Your task to perform on an android device: Show me recent news Image 0: 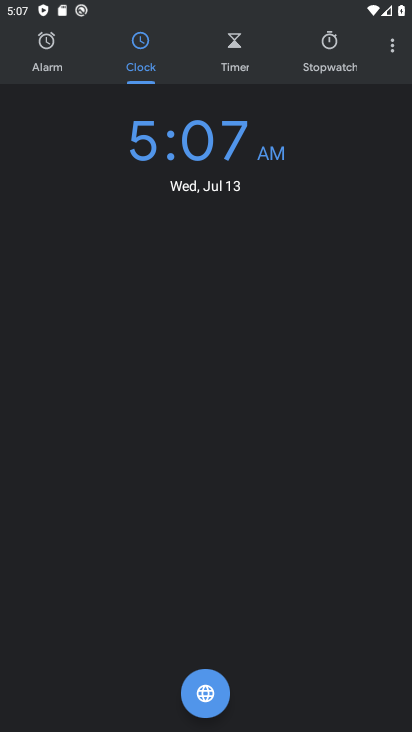
Step 0: drag from (340, 643) to (330, 188)
Your task to perform on an android device: Show me recent news Image 1: 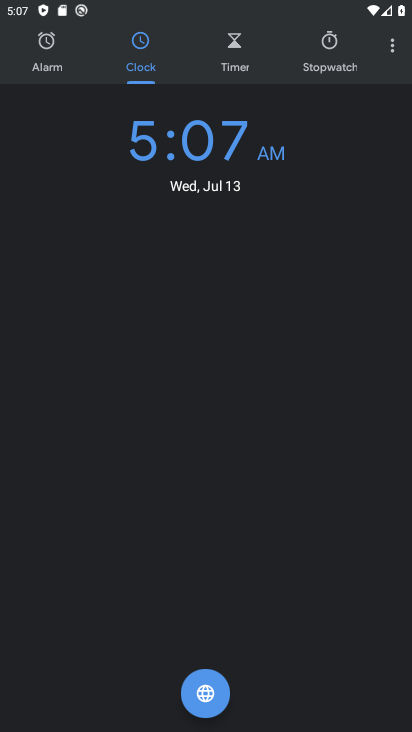
Step 1: press home button
Your task to perform on an android device: Show me recent news Image 2: 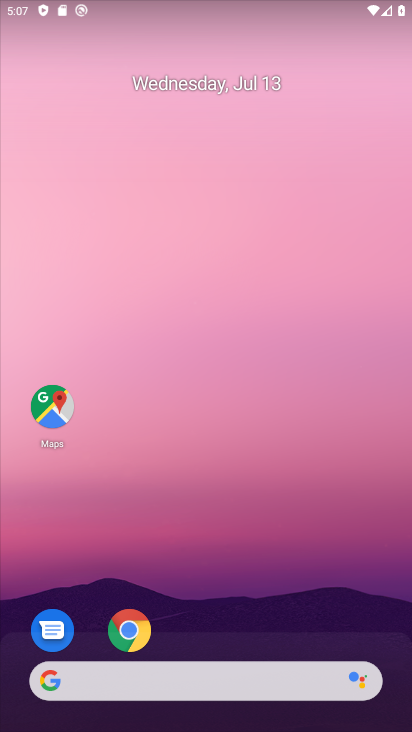
Step 2: click (132, 633)
Your task to perform on an android device: Show me recent news Image 3: 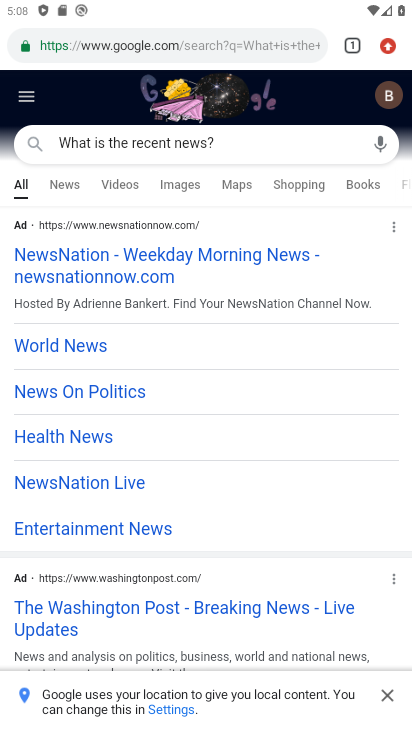
Step 3: click (169, 51)
Your task to perform on an android device: Show me recent news Image 4: 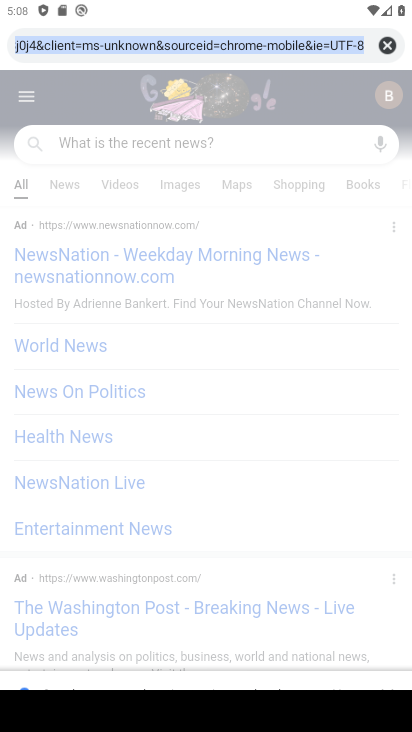
Step 4: type "Show me recent news"
Your task to perform on an android device: Show me recent news Image 5: 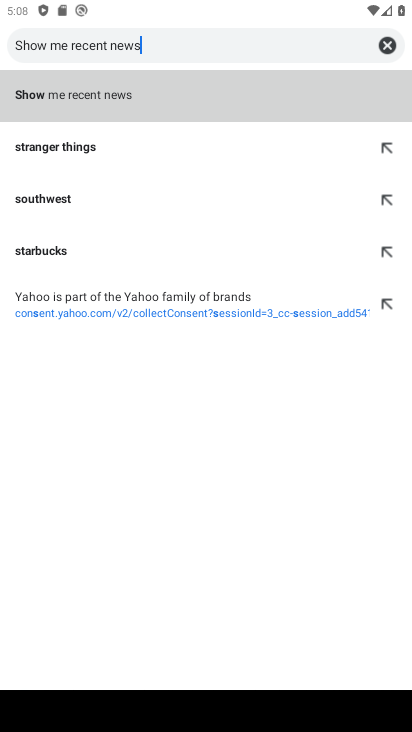
Step 5: type ""
Your task to perform on an android device: Show me recent news Image 6: 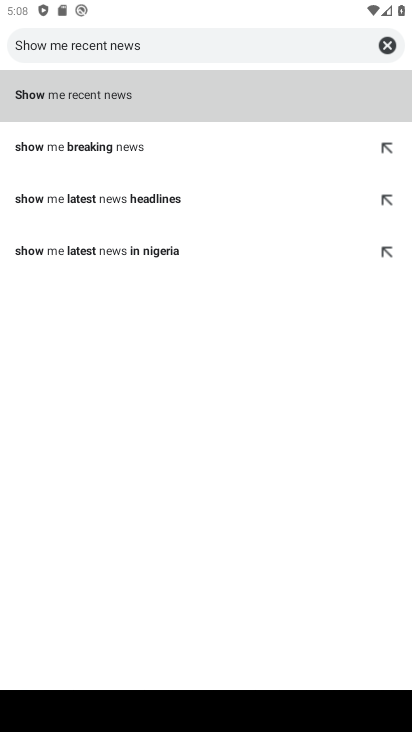
Step 6: click (163, 91)
Your task to perform on an android device: Show me recent news Image 7: 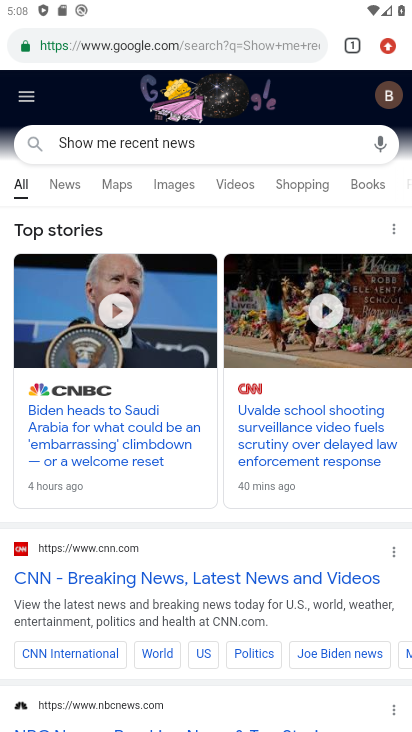
Step 7: task complete